Your task to perform on an android device: toggle location history Image 0: 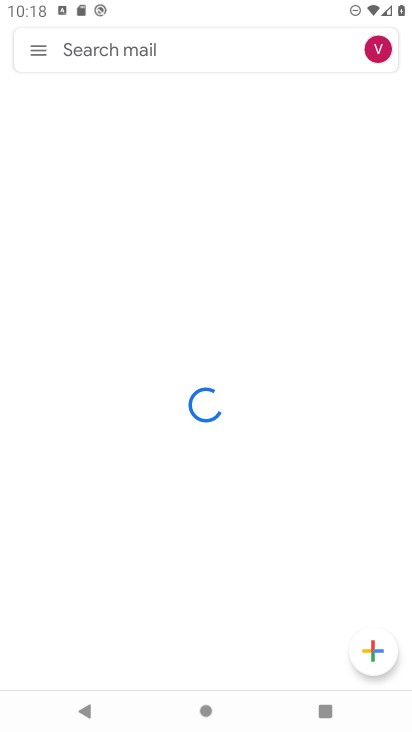
Step 0: press home button
Your task to perform on an android device: toggle location history Image 1: 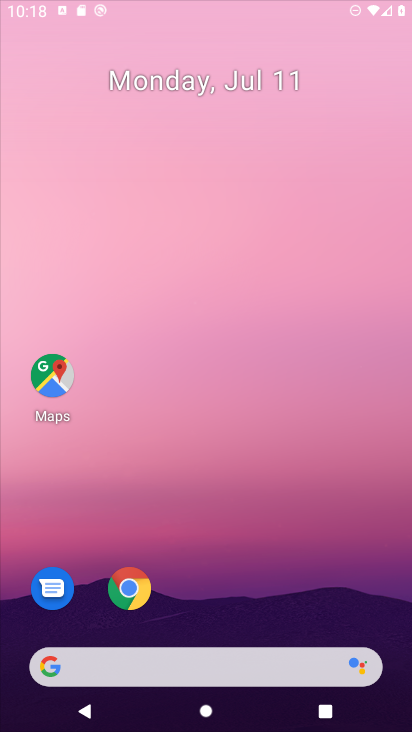
Step 1: drag from (385, 675) to (149, 11)
Your task to perform on an android device: toggle location history Image 2: 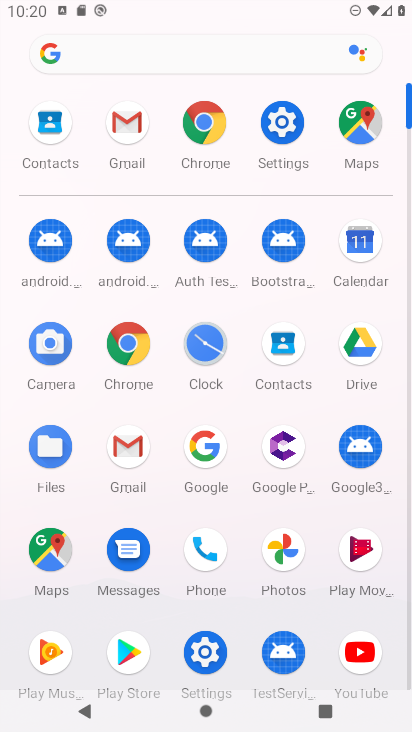
Step 2: click (218, 660)
Your task to perform on an android device: toggle location history Image 3: 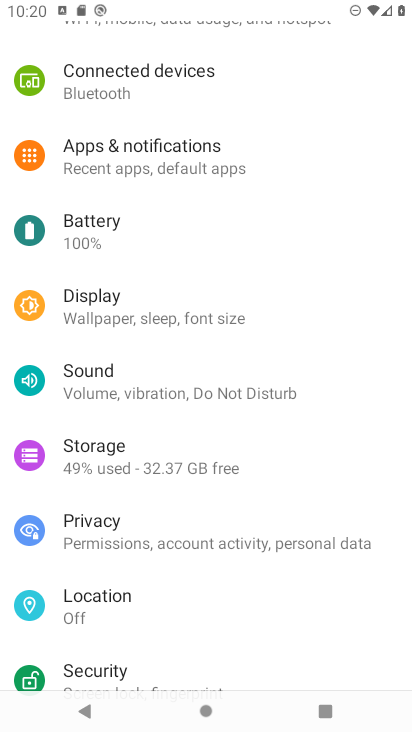
Step 3: click (170, 611)
Your task to perform on an android device: toggle location history Image 4: 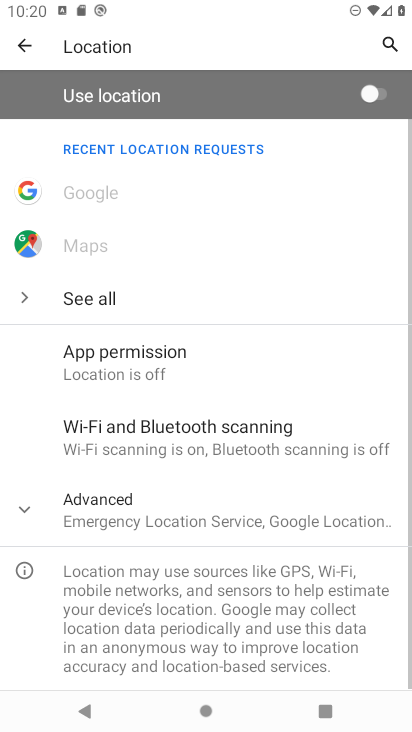
Step 4: click (78, 510)
Your task to perform on an android device: toggle location history Image 5: 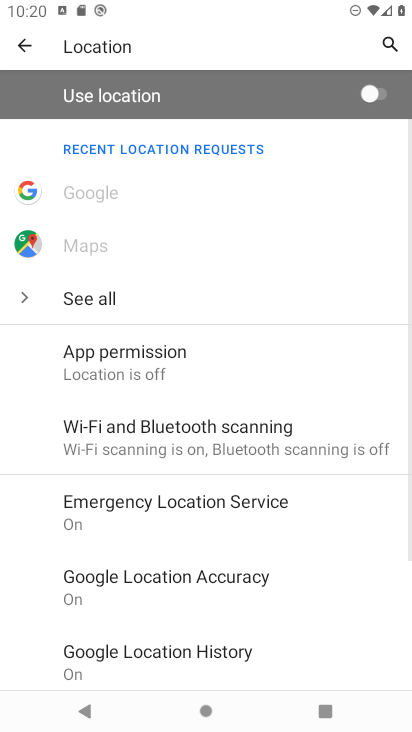
Step 5: click (212, 663)
Your task to perform on an android device: toggle location history Image 6: 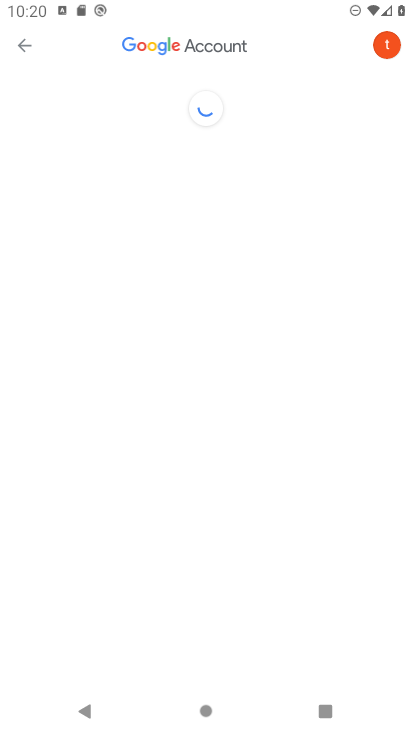
Step 6: drag from (291, 630) to (110, 103)
Your task to perform on an android device: toggle location history Image 7: 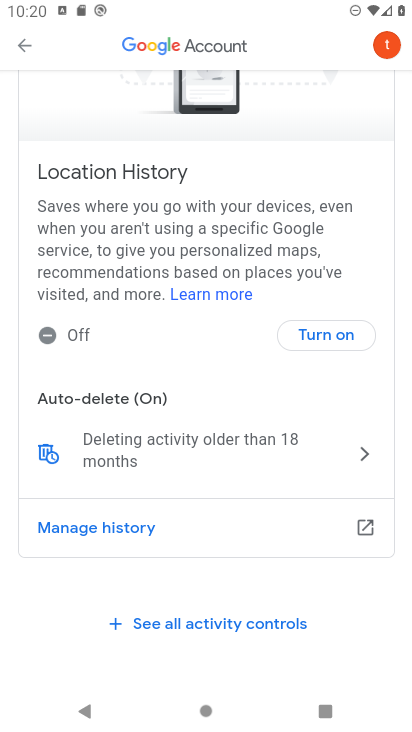
Step 7: click (336, 335)
Your task to perform on an android device: toggle location history Image 8: 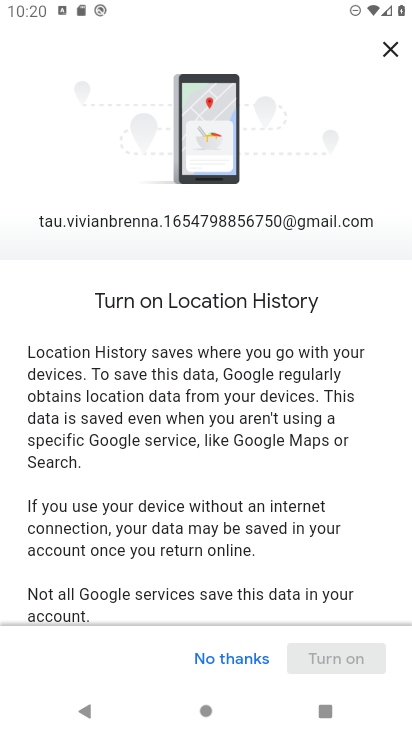
Step 8: task complete